Your task to perform on an android device: Open network settings Image 0: 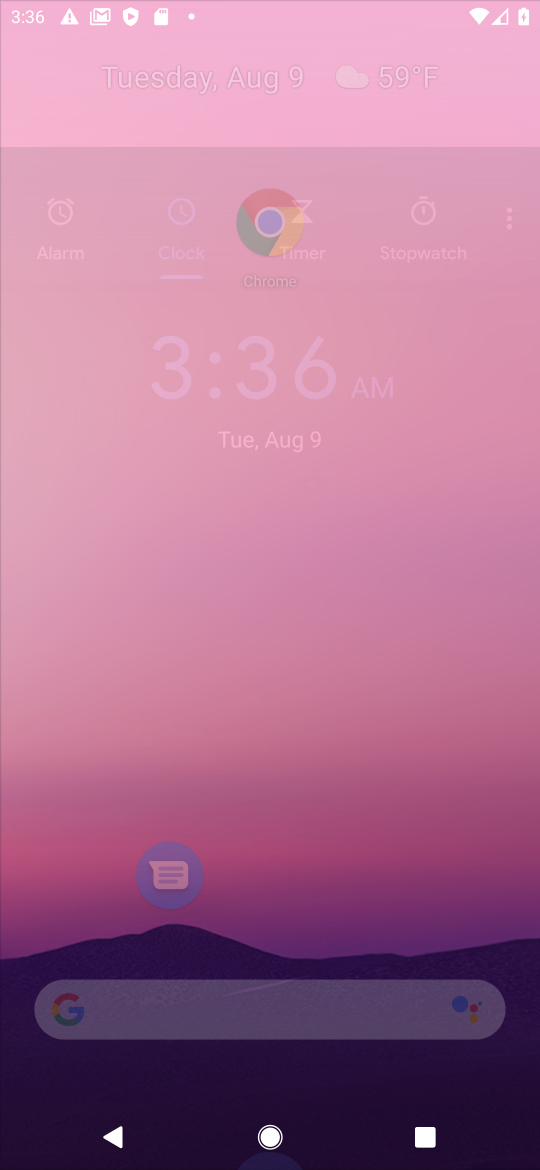
Step 0: press back button
Your task to perform on an android device: Open network settings Image 1: 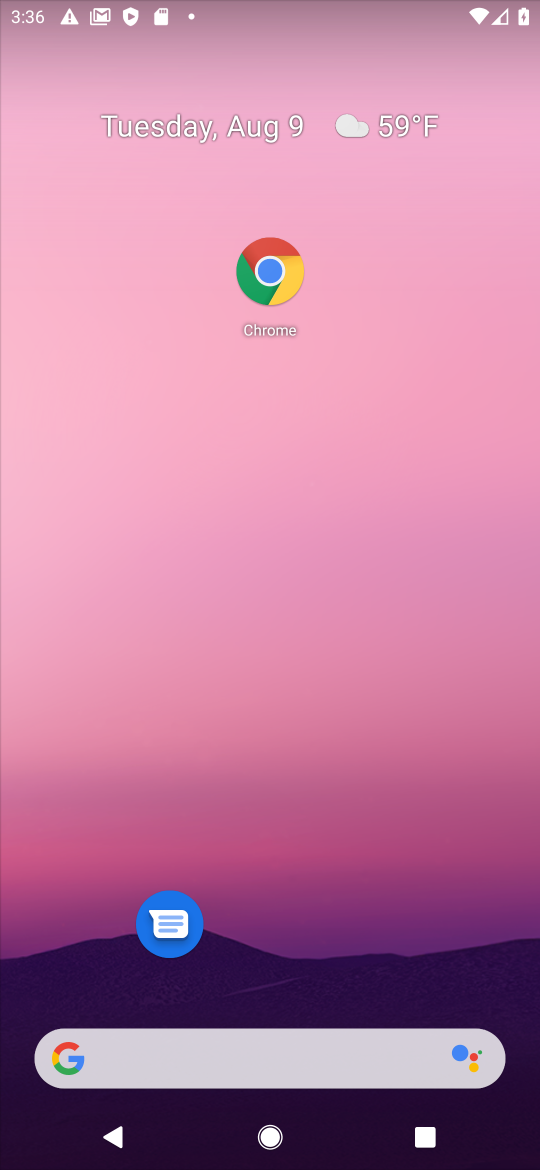
Step 1: drag from (160, 149) to (408, 93)
Your task to perform on an android device: Open network settings Image 2: 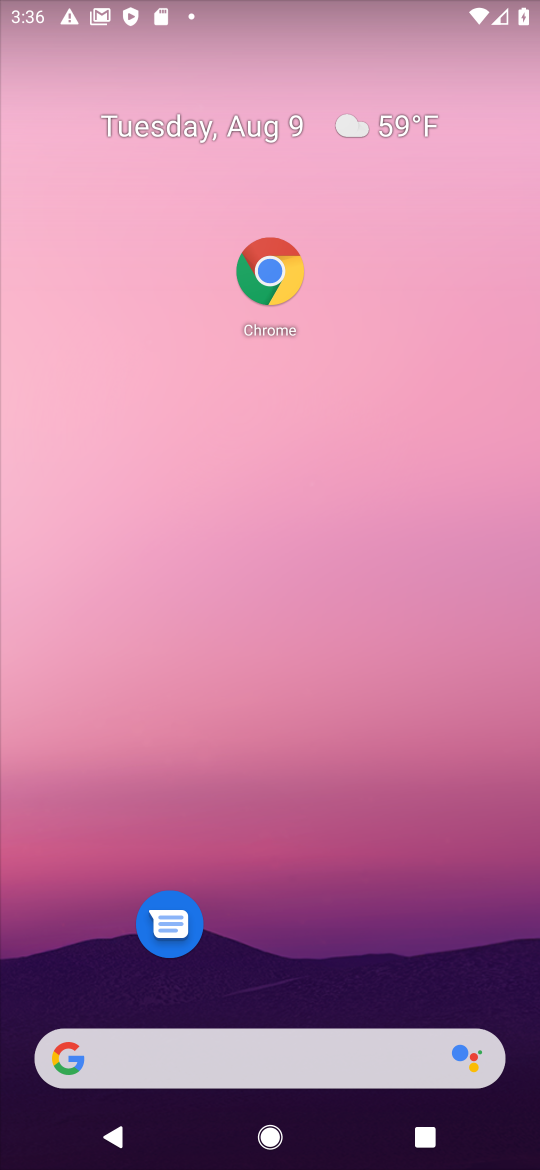
Step 2: drag from (289, 526) to (306, 167)
Your task to perform on an android device: Open network settings Image 3: 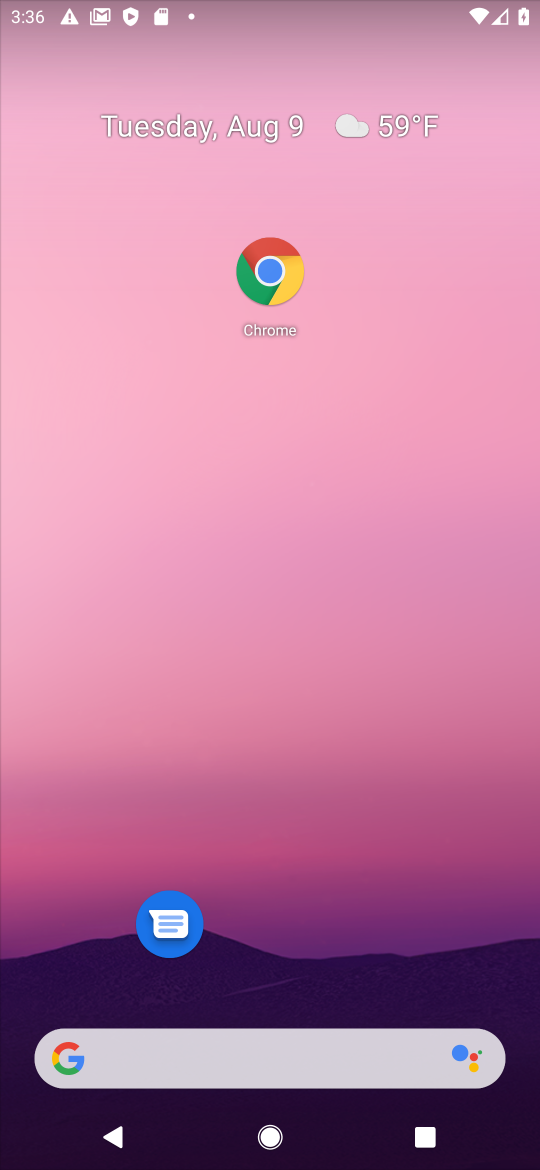
Step 3: drag from (255, 653) to (250, 136)
Your task to perform on an android device: Open network settings Image 4: 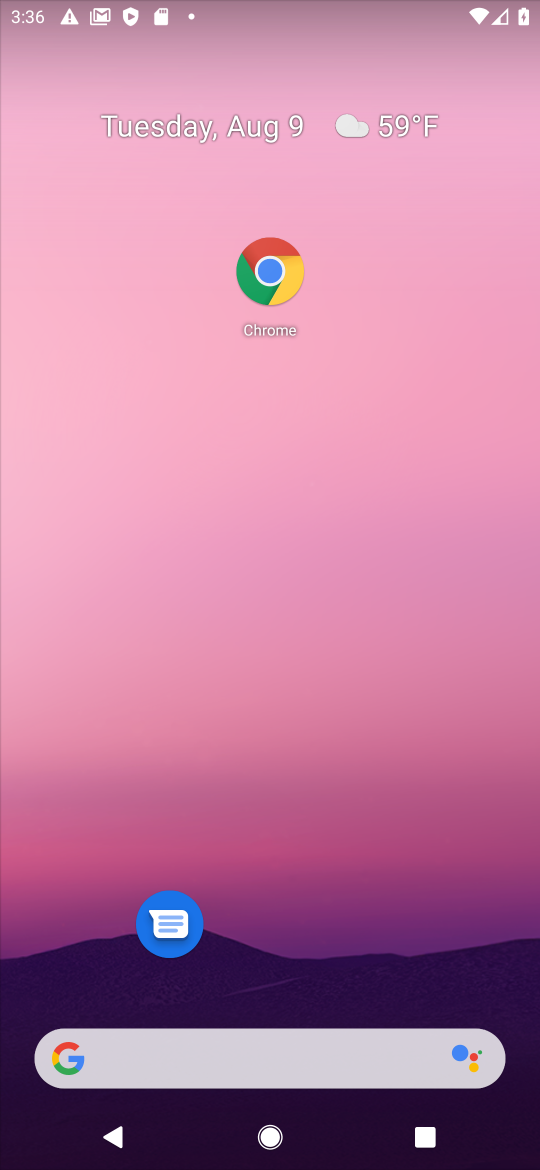
Step 4: drag from (278, 579) to (214, 67)
Your task to perform on an android device: Open network settings Image 5: 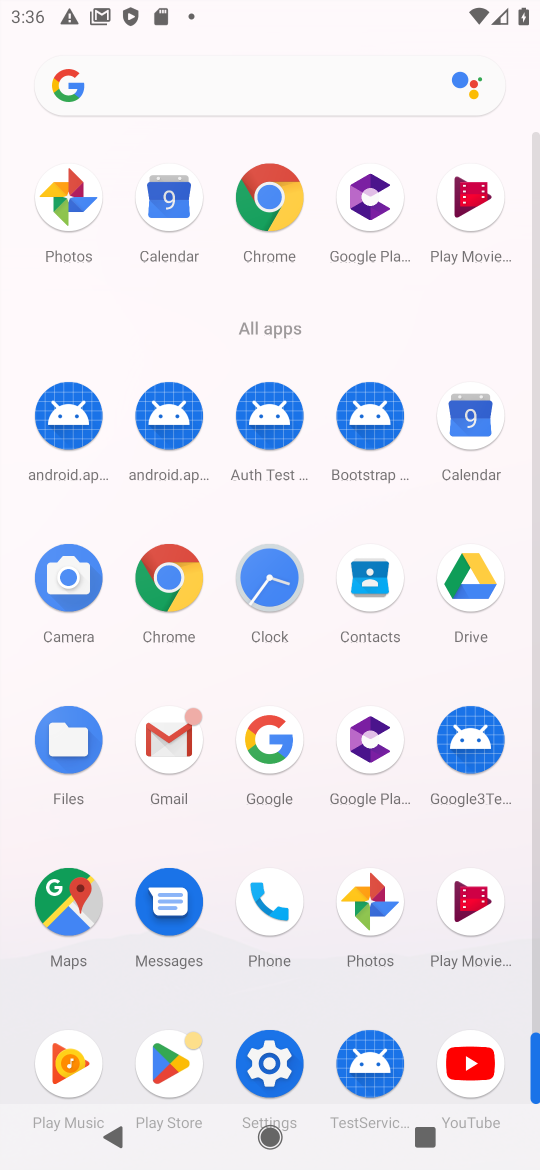
Step 5: click (271, 1064)
Your task to perform on an android device: Open network settings Image 6: 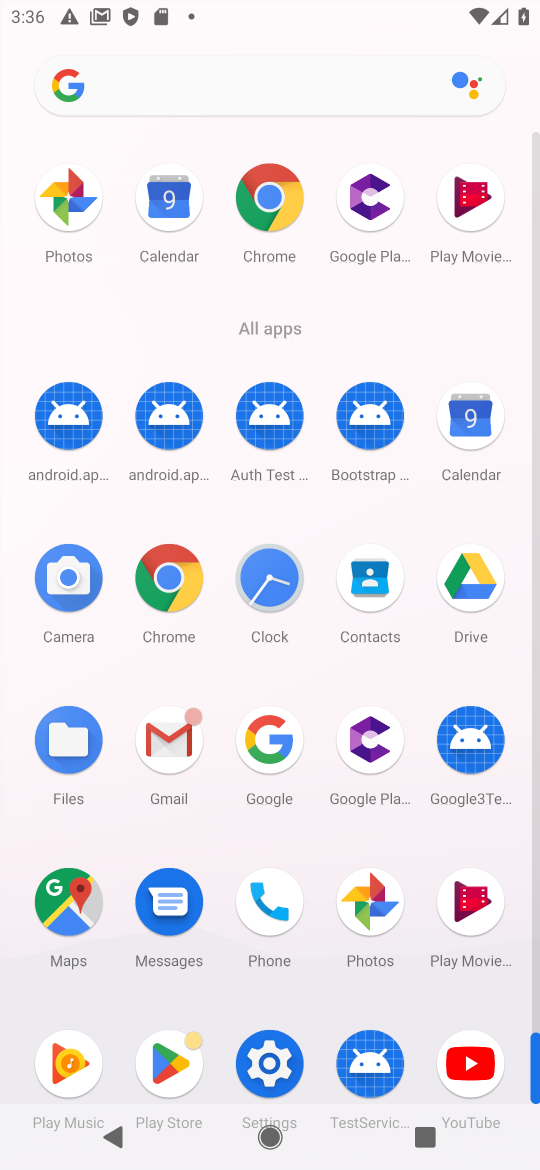
Step 6: click (271, 1067)
Your task to perform on an android device: Open network settings Image 7: 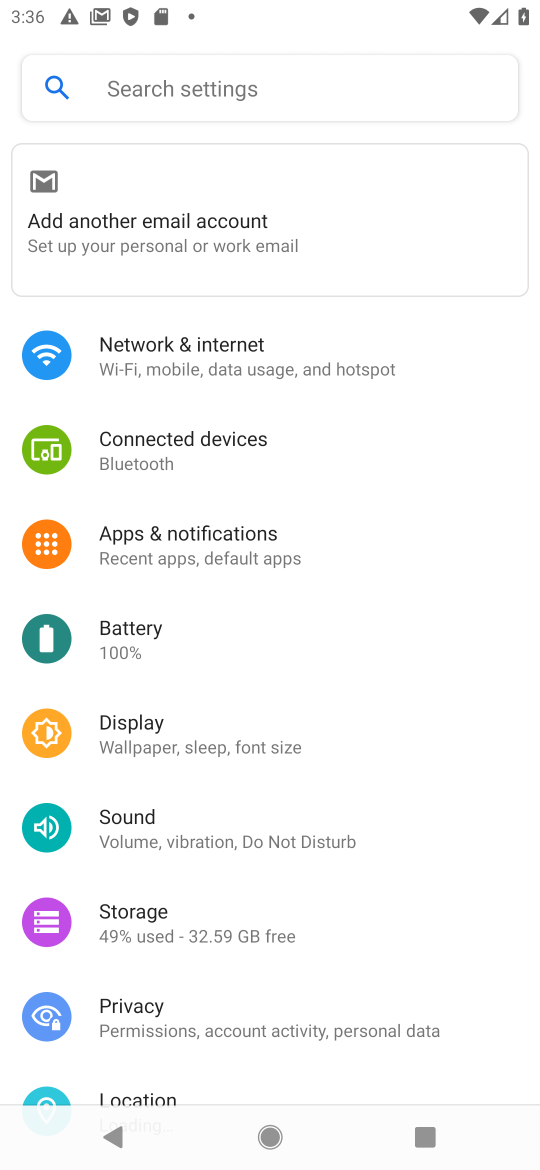
Step 7: click (182, 380)
Your task to perform on an android device: Open network settings Image 8: 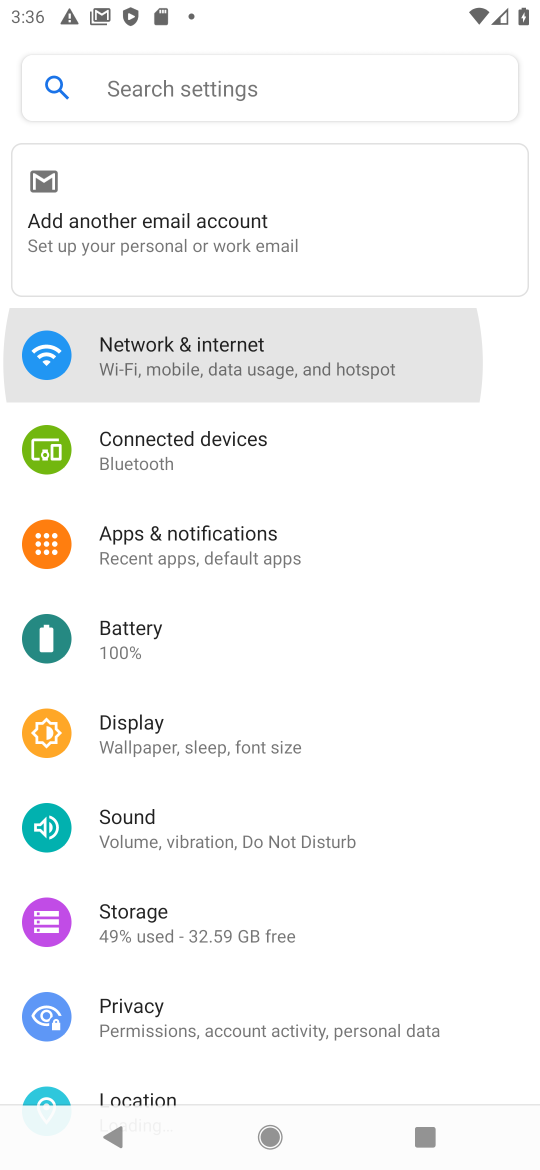
Step 8: click (183, 371)
Your task to perform on an android device: Open network settings Image 9: 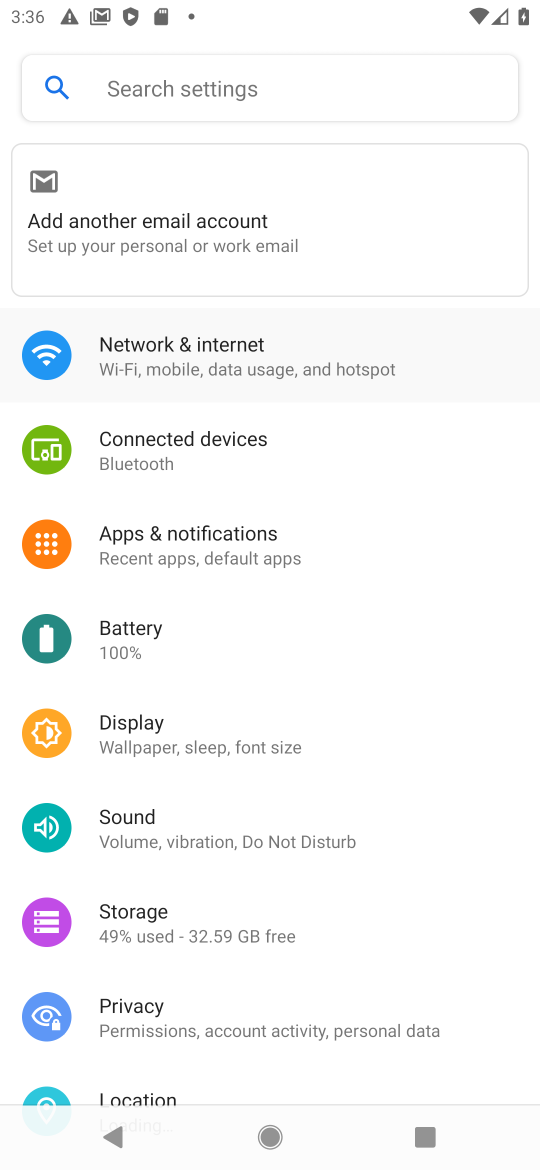
Step 9: click (188, 374)
Your task to perform on an android device: Open network settings Image 10: 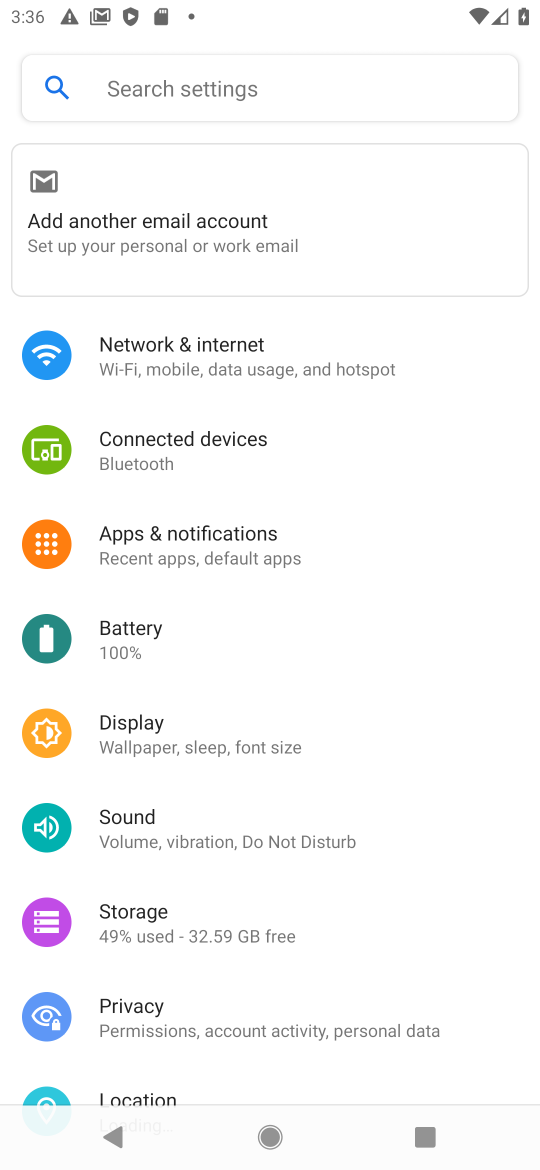
Step 10: click (199, 370)
Your task to perform on an android device: Open network settings Image 11: 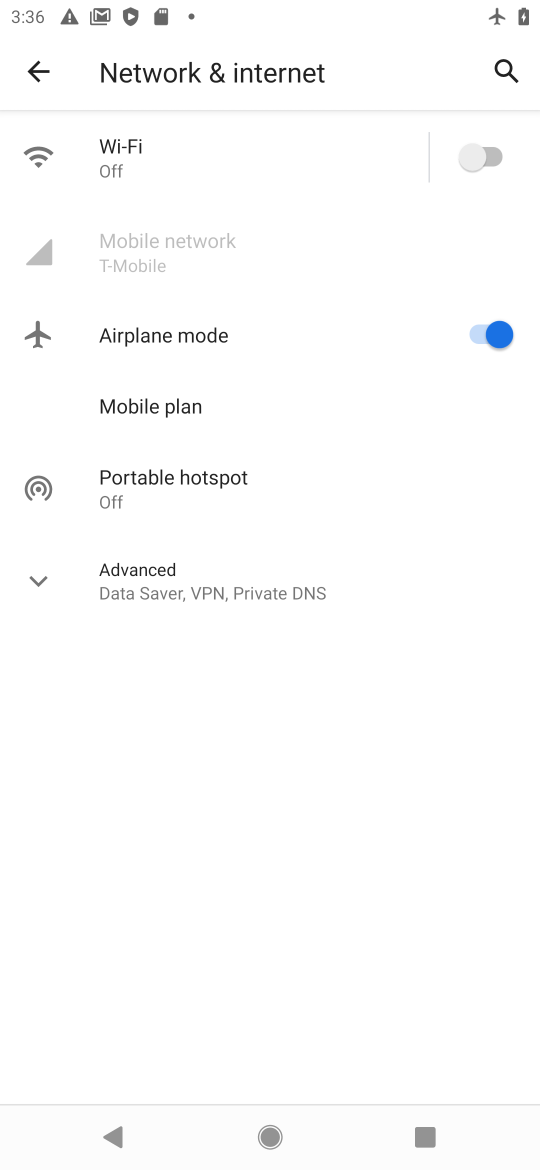
Step 11: click (478, 163)
Your task to perform on an android device: Open network settings Image 12: 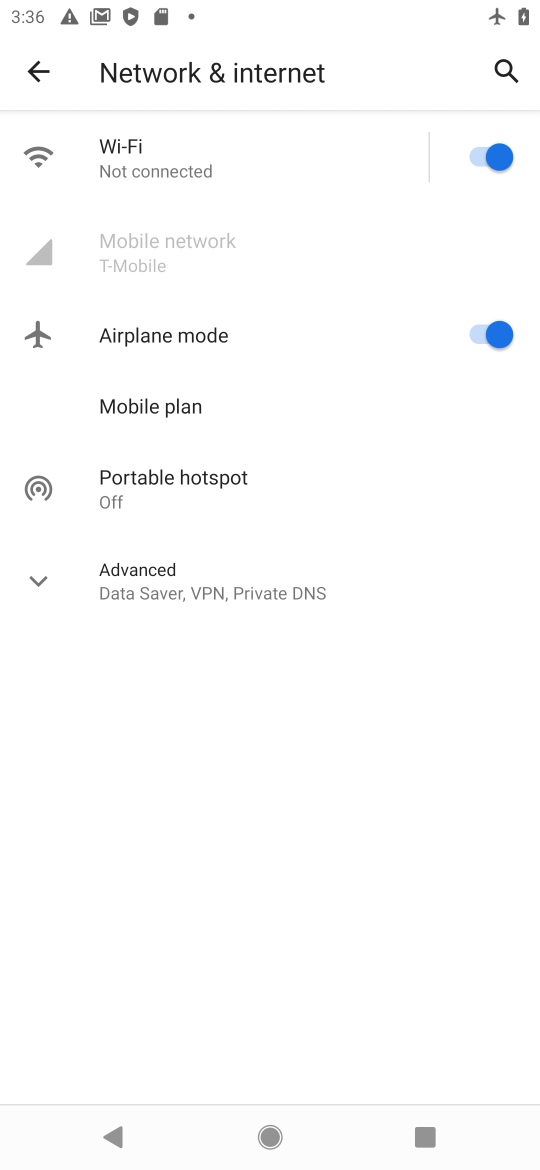
Step 12: click (495, 342)
Your task to perform on an android device: Open network settings Image 13: 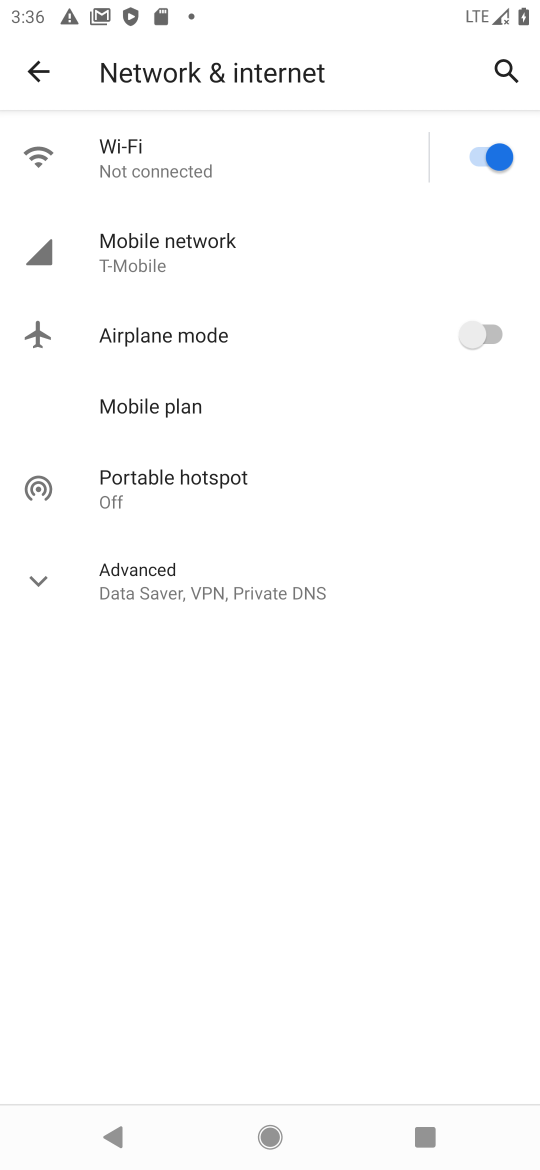
Step 13: task complete